Your task to perform on an android device: refresh tabs in the chrome app Image 0: 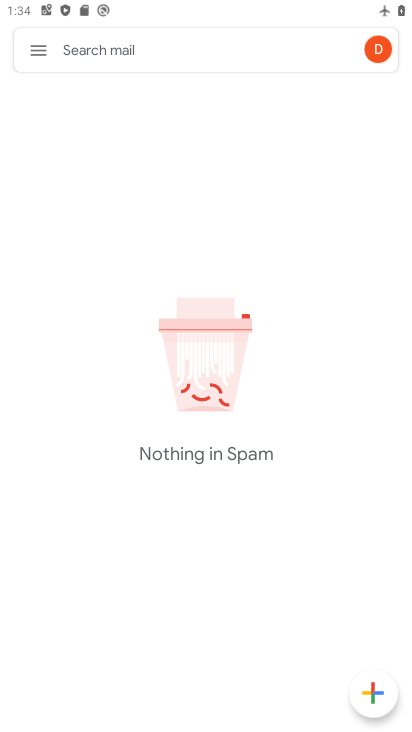
Step 0: press back button
Your task to perform on an android device: refresh tabs in the chrome app Image 1: 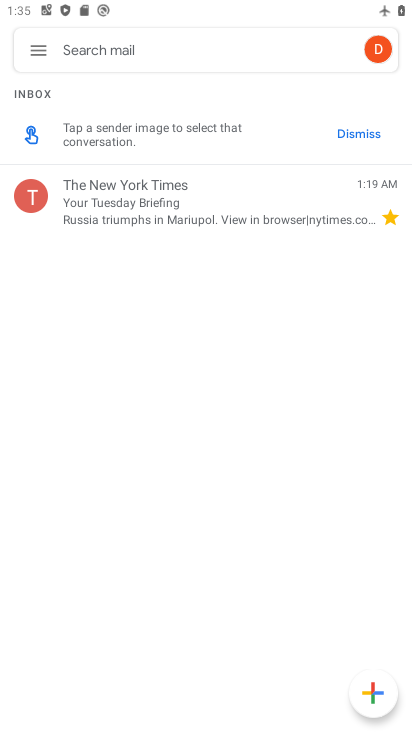
Step 1: press back button
Your task to perform on an android device: refresh tabs in the chrome app Image 2: 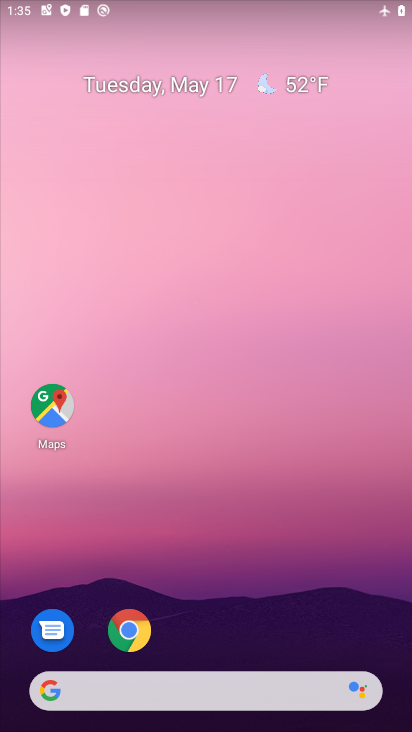
Step 2: click (123, 621)
Your task to perform on an android device: refresh tabs in the chrome app Image 3: 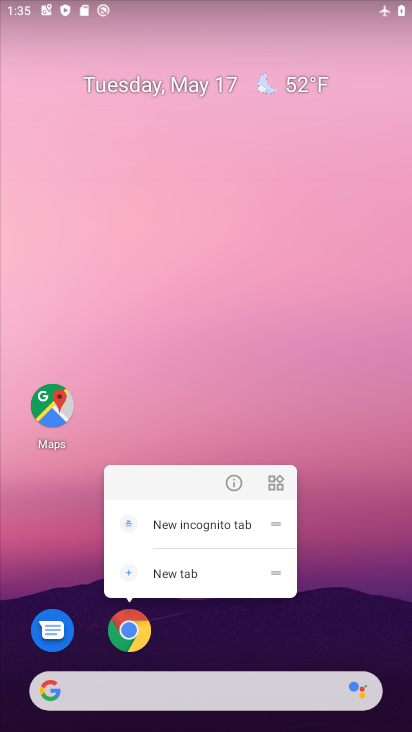
Step 3: click (138, 635)
Your task to perform on an android device: refresh tabs in the chrome app Image 4: 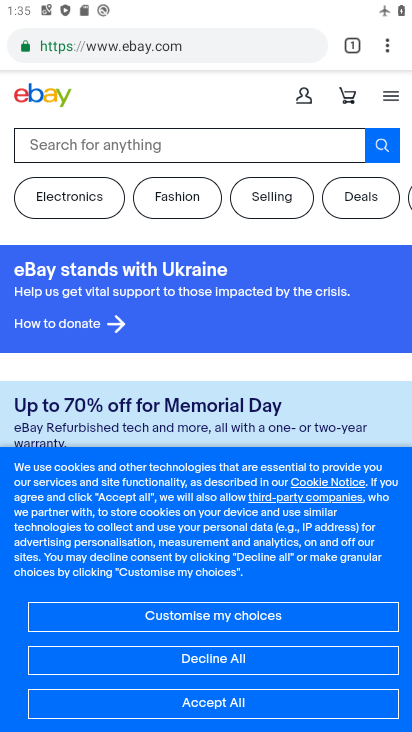
Step 4: click (385, 45)
Your task to perform on an android device: refresh tabs in the chrome app Image 5: 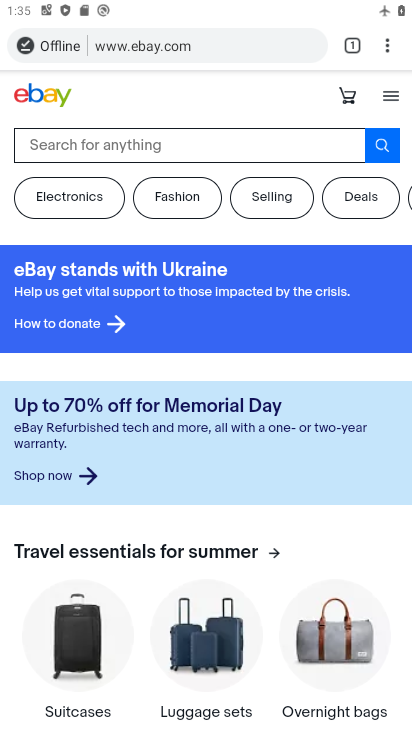
Step 5: task complete